Your task to perform on an android device: turn off airplane mode Image 0: 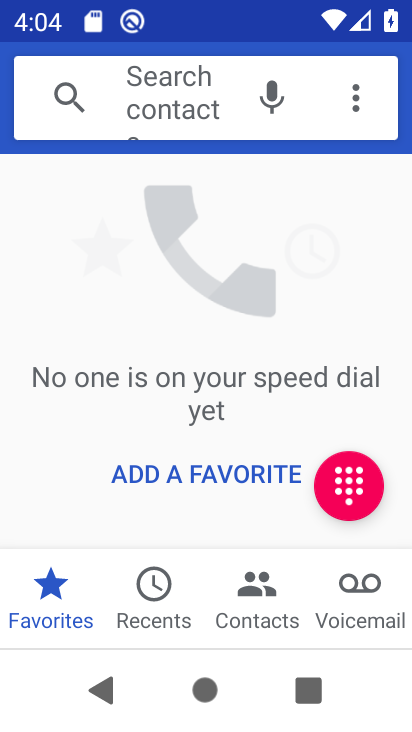
Step 0: press home button
Your task to perform on an android device: turn off airplane mode Image 1: 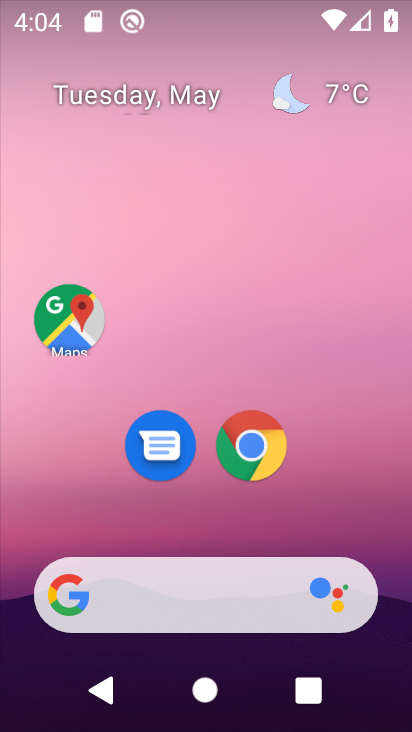
Step 1: drag from (185, 525) to (213, 40)
Your task to perform on an android device: turn off airplane mode Image 2: 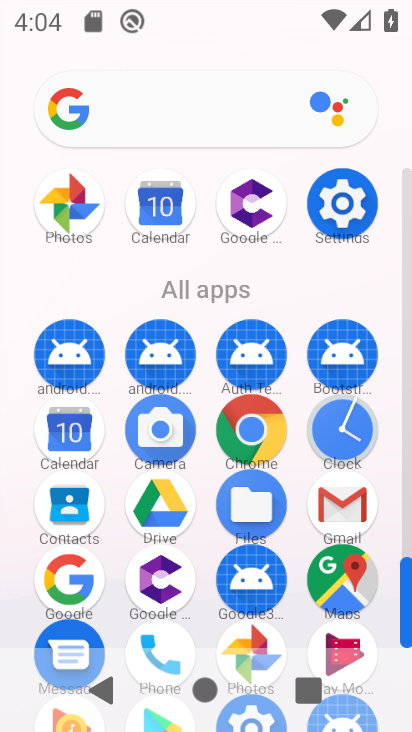
Step 2: click (336, 224)
Your task to perform on an android device: turn off airplane mode Image 3: 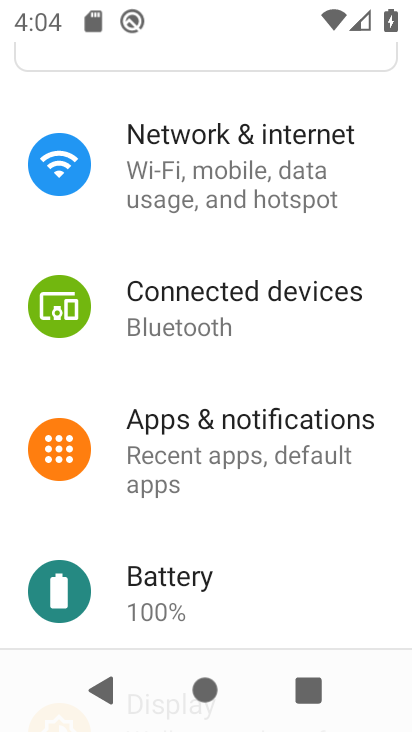
Step 3: click (254, 219)
Your task to perform on an android device: turn off airplane mode Image 4: 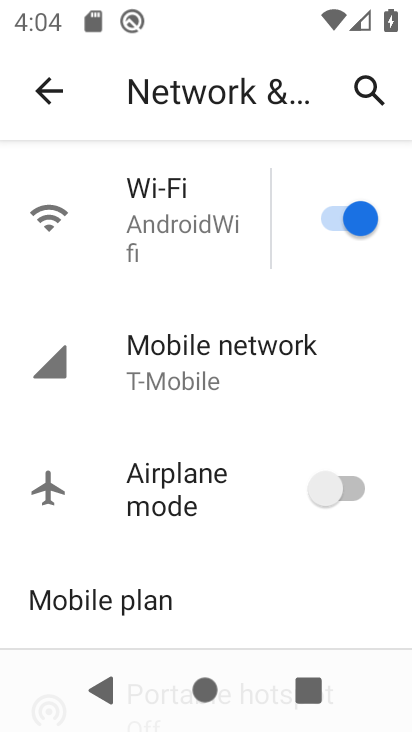
Step 4: task complete